Your task to perform on an android device: Do I have any events this weekend? Image 0: 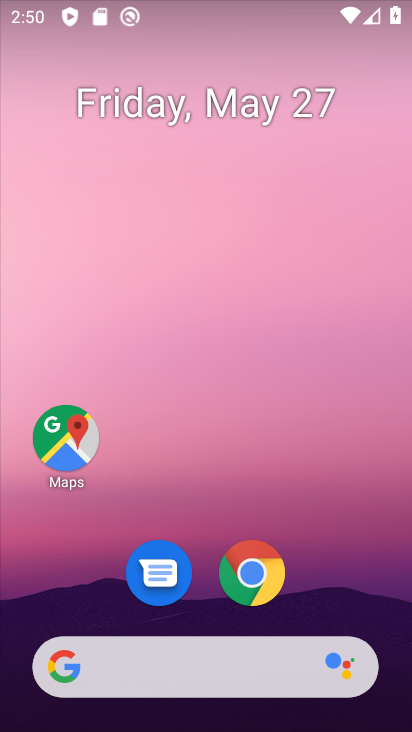
Step 0: drag from (201, 541) to (150, 49)
Your task to perform on an android device: Do I have any events this weekend? Image 1: 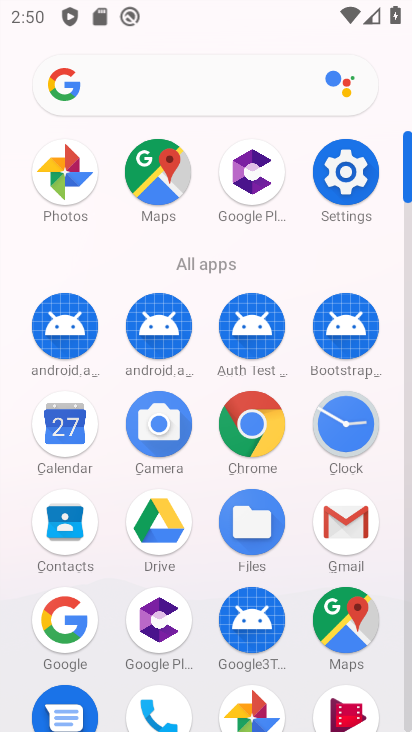
Step 1: click (74, 424)
Your task to perform on an android device: Do I have any events this weekend? Image 2: 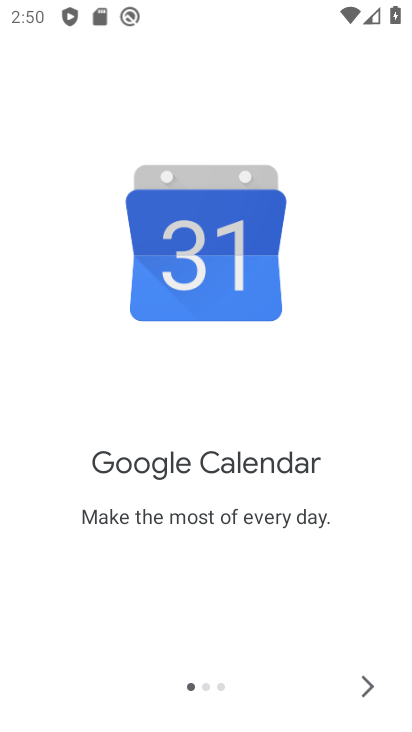
Step 2: click (368, 681)
Your task to perform on an android device: Do I have any events this weekend? Image 3: 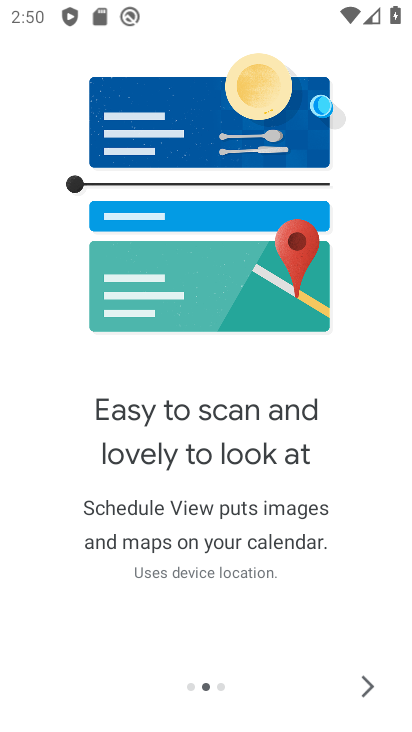
Step 3: click (368, 681)
Your task to perform on an android device: Do I have any events this weekend? Image 4: 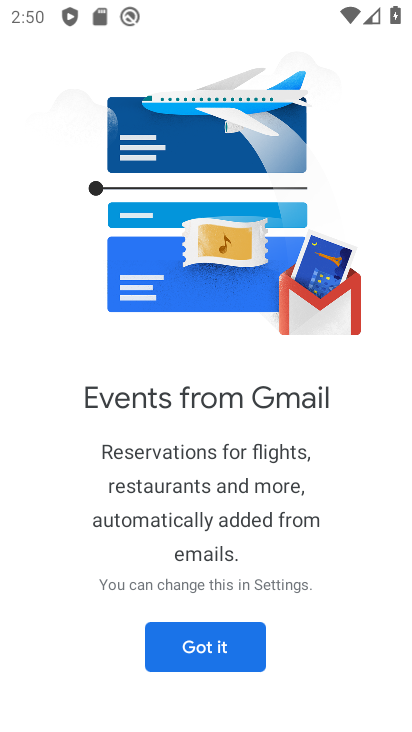
Step 4: click (239, 632)
Your task to perform on an android device: Do I have any events this weekend? Image 5: 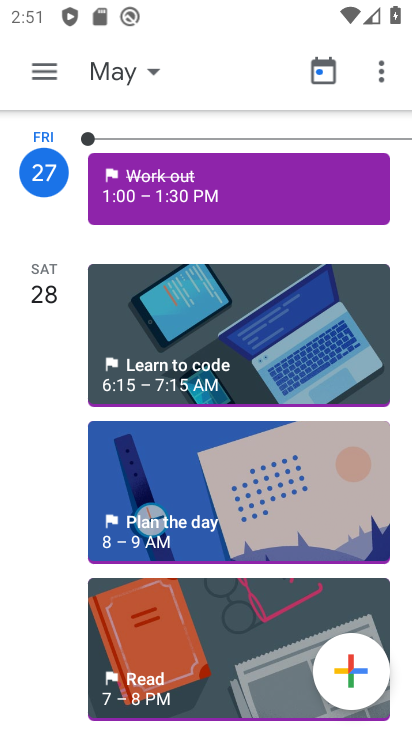
Step 5: task complete